Your task to perform on an android device: empty trash in google photos Image 0: 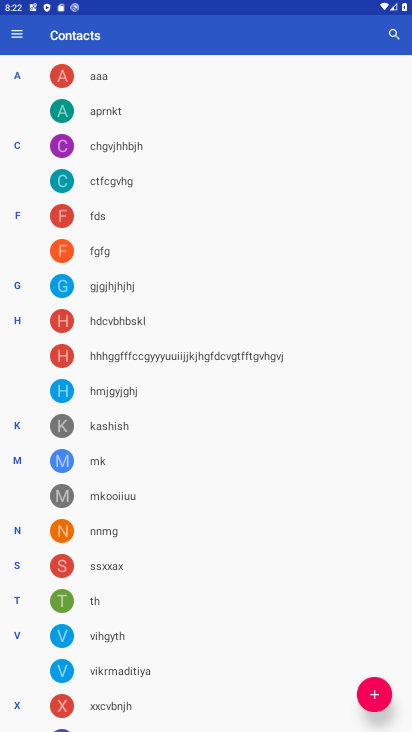
Step 0: press home button
Your task to perform on an android device: empty trash in google photos Image 1: 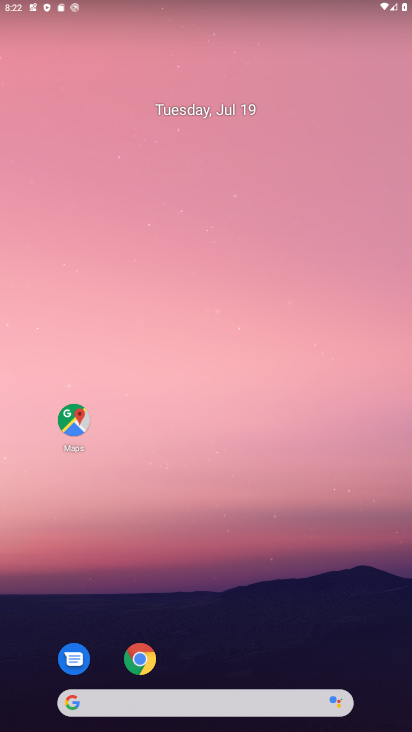
Step 1: drag from (162, 697) to (221, 339)
Your task to perform on an android device: empty trash in google photos Image 2: 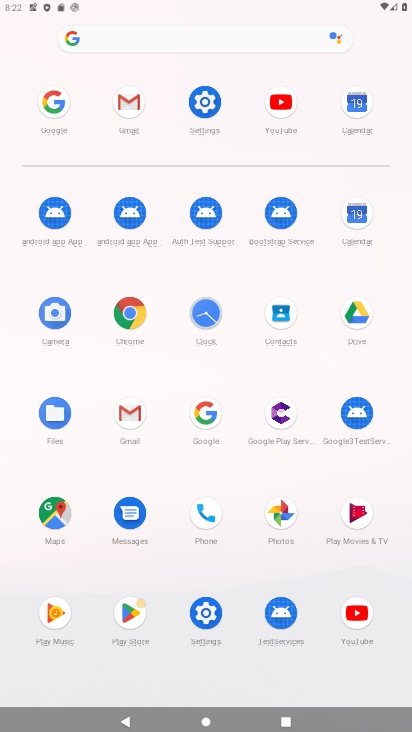
Step 2: click (269, 520)
Your task to perform on an android device: empty trash in google photos Image 3: 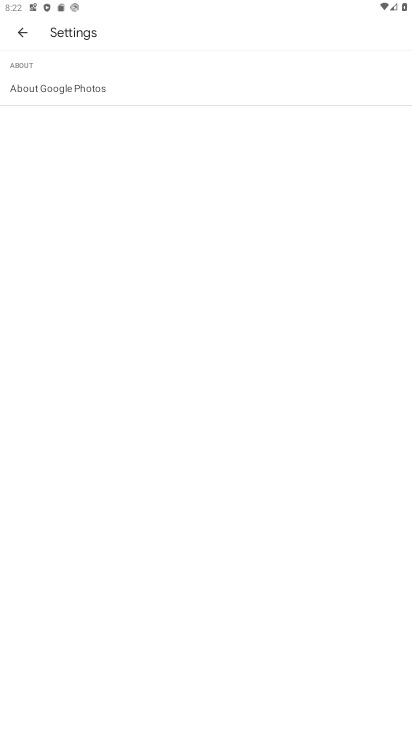
Step 3: click (21, 40)
Your task to perform on an android device: empty trash in google photos Image 4: 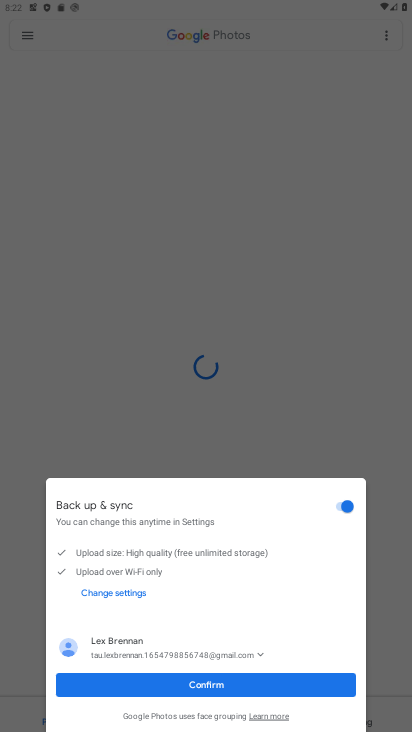
Step 4: click (168, 690)
Your task to perform on an android device: empty trash in google photos Image 5: 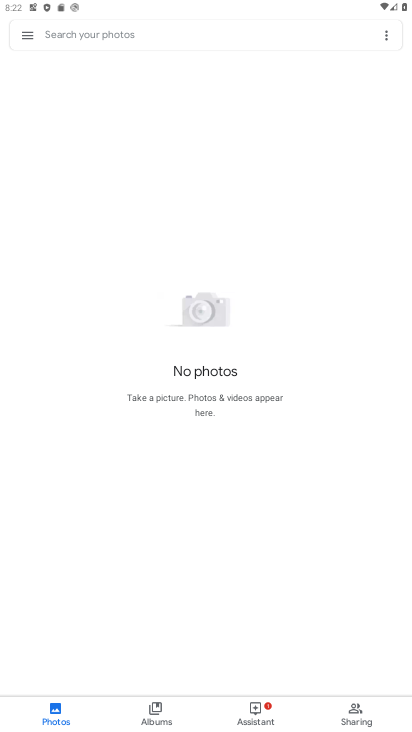
Step 5: click (22, 35)
Your task to perform on an android device: empty trash in google photos Image 6: 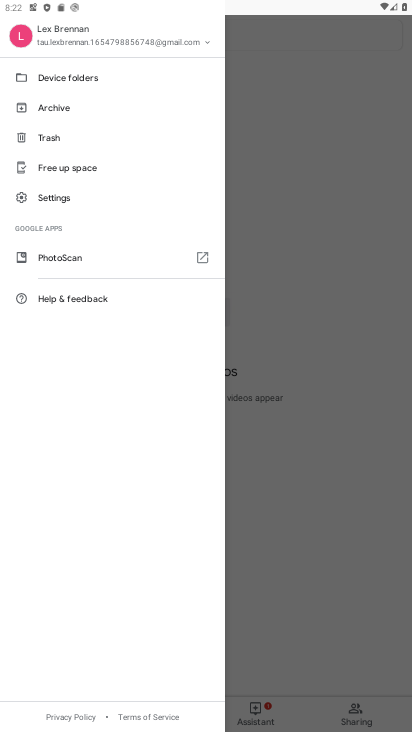
Step 6: click (70, 138)
Your task to perform on an android device: empty trash in google photos Image 7: 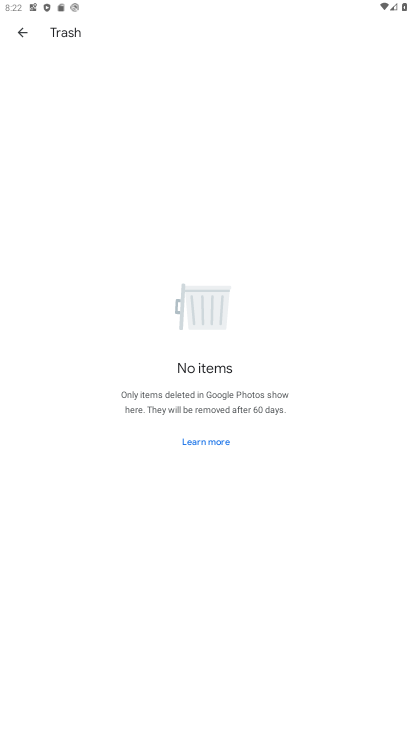
Step 7: task complete